Your task to perform on an android device: Is it going to rain tomorrow? Image 0: 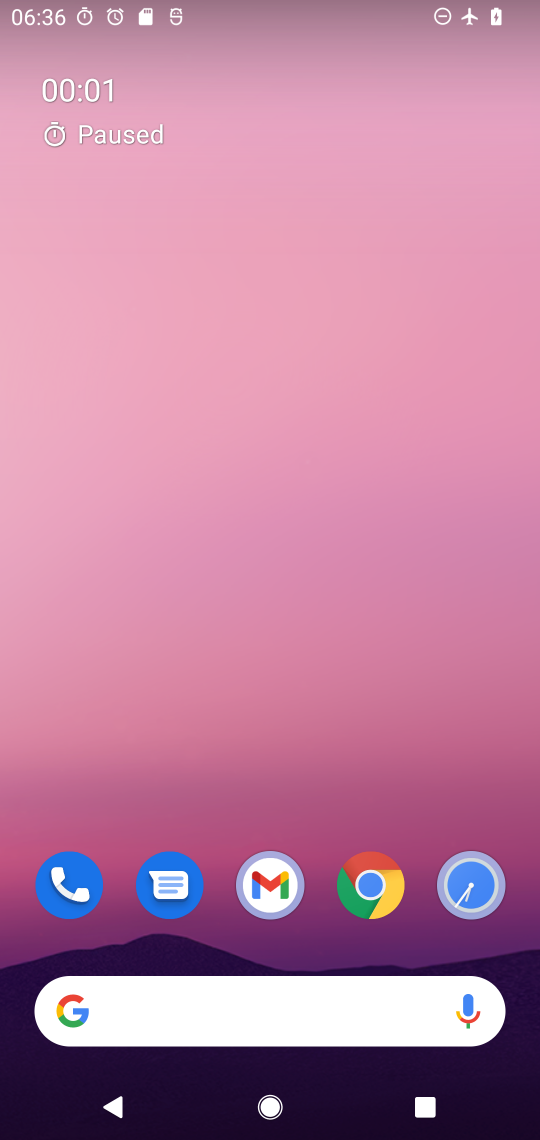
Step 0: drag from (286, 698) to (292, 95)
Your task to perform on an android device: Is it going to rain tomorrow? Image 1: 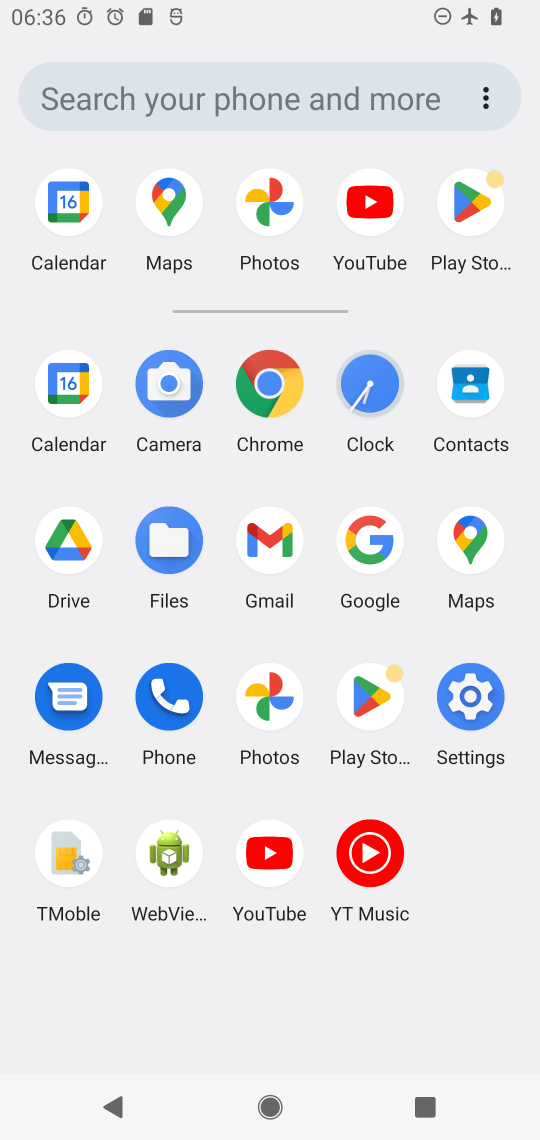
Step 1: click (265, 365)
Your task to perform on an android device: Is it going to rain tomorrow? Image 2: 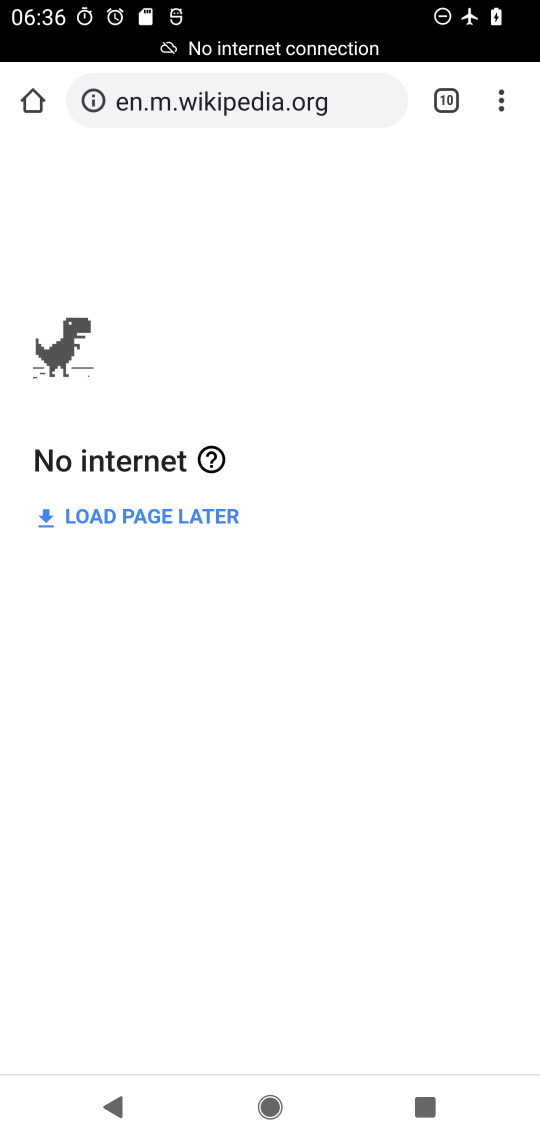
Step 2: click (498, 108)
Your task to perform on an android device: Is it going to rain tomorrow? Image 3: 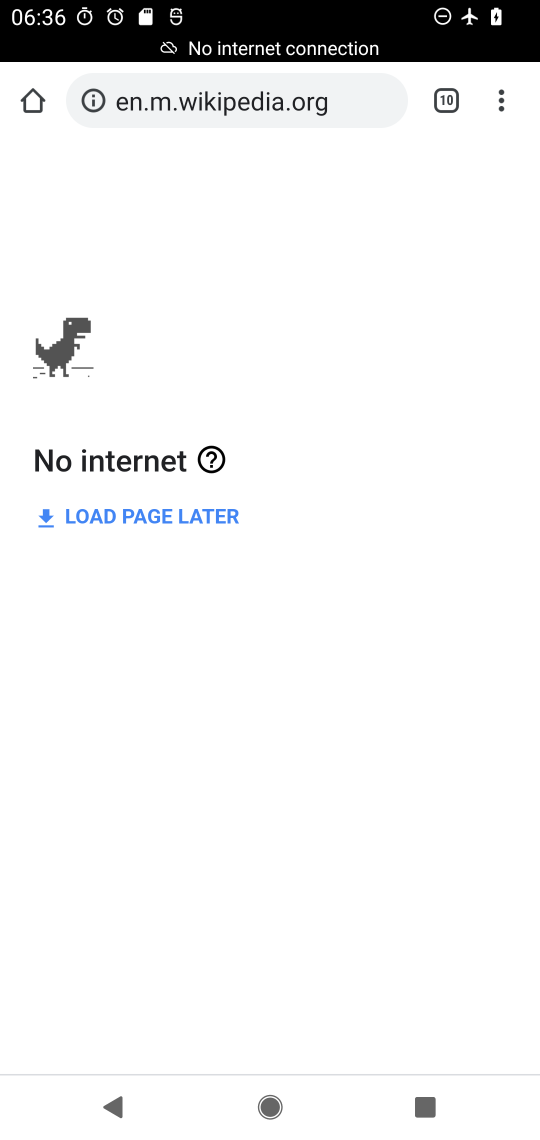
Step 3: click (501, 93)
Your task to perform on an android device: Is it going to rain tomorrow? Image 4: 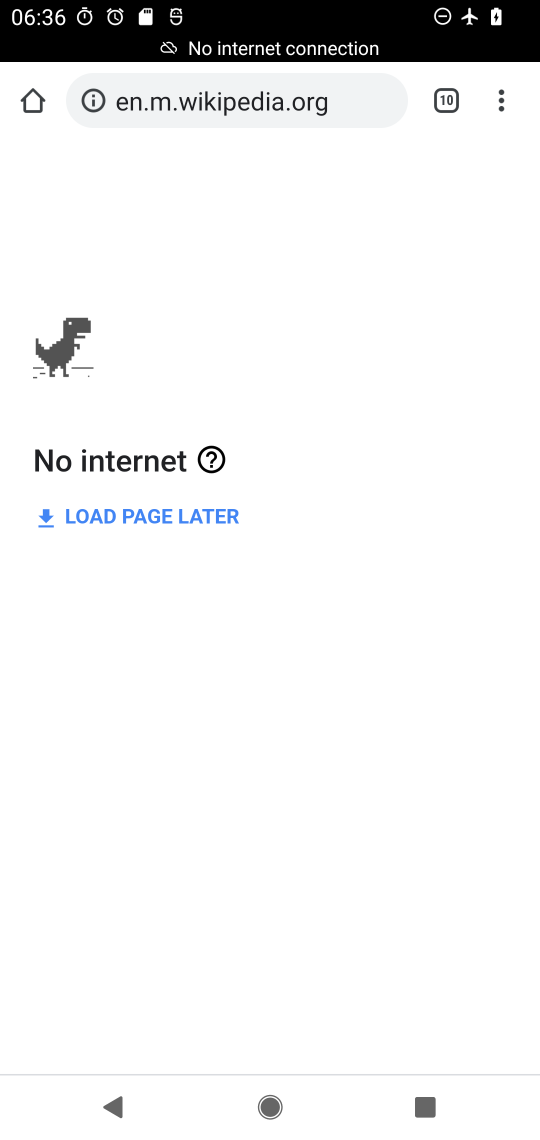
Step 4: click (489, 91)
Your task to perform on an android device: Is it going to rain tomorrow? Image 5: 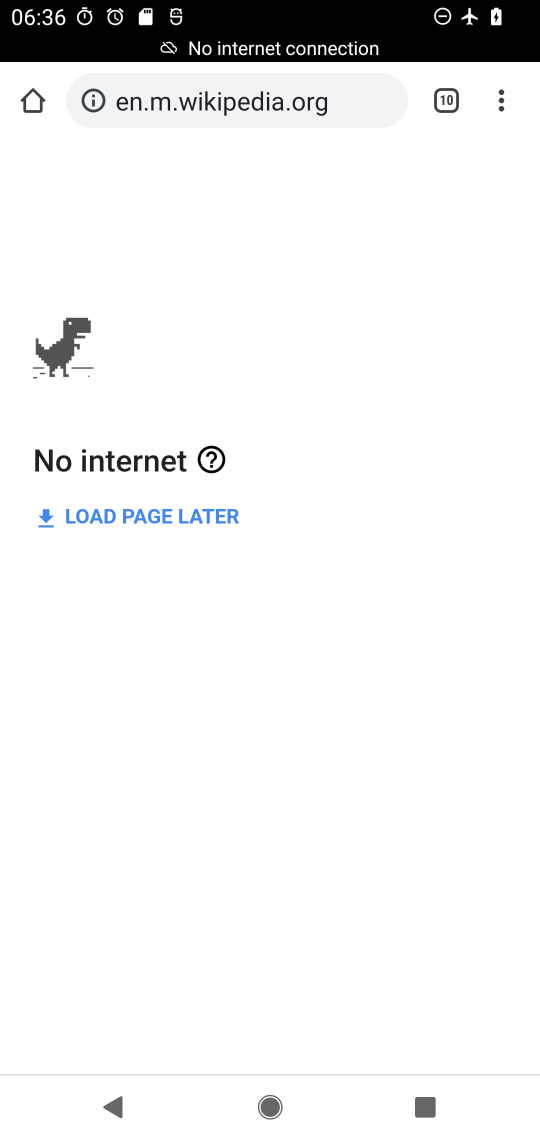
Step 5: click (489, 95)
Your task to perform on an android device: Is it going to rain tomorrow? Image 6: 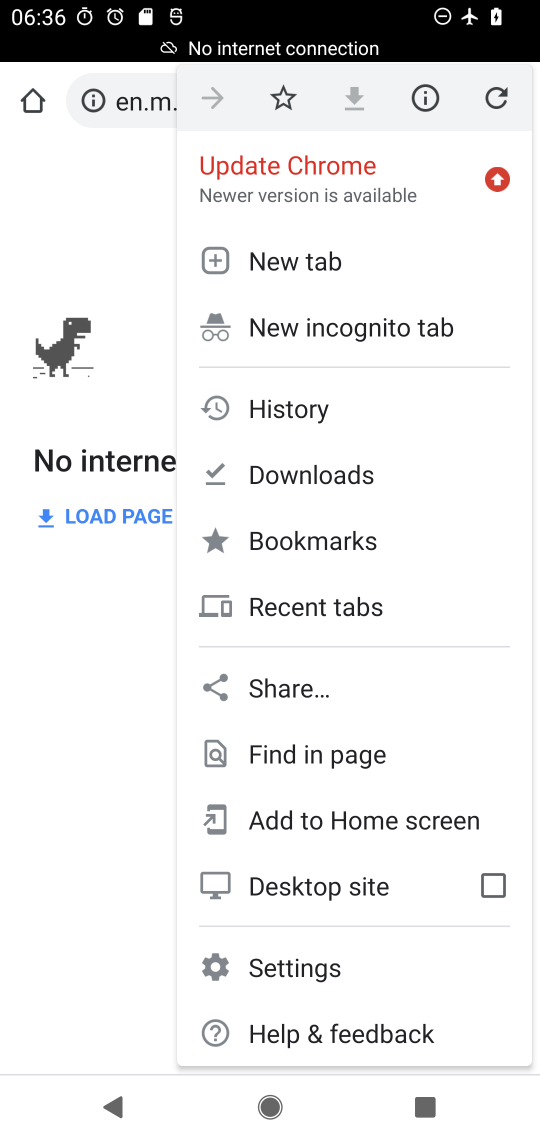
Step 6: click (324, 252)
Your task to perform on an android device: Is it going to rain tomorrow? Image 7: 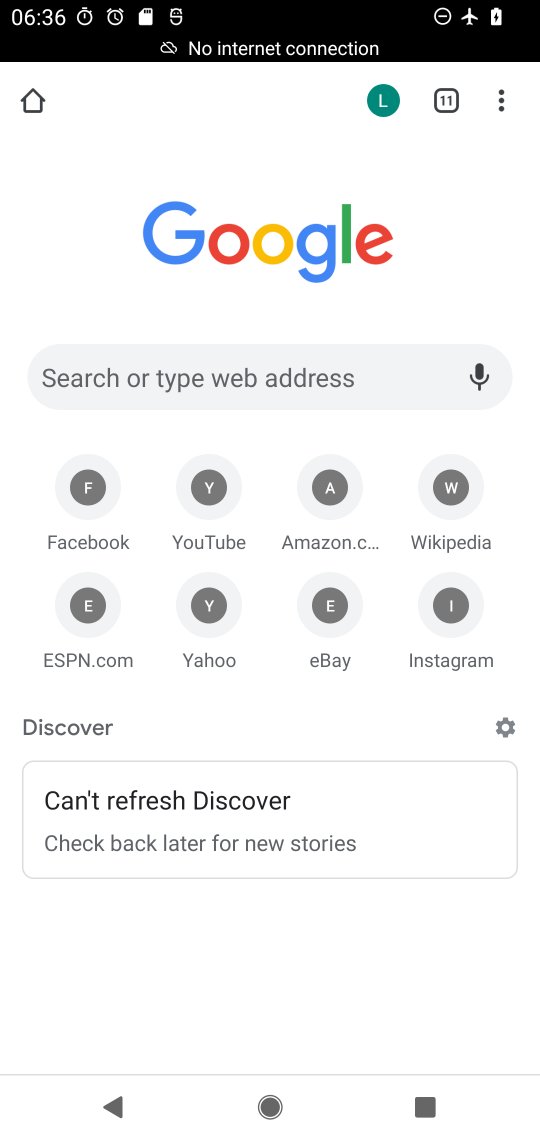
Step 7: click (289, 373)
Your task to perform on an android device: Is it going to rain tomorrow? Image 8: 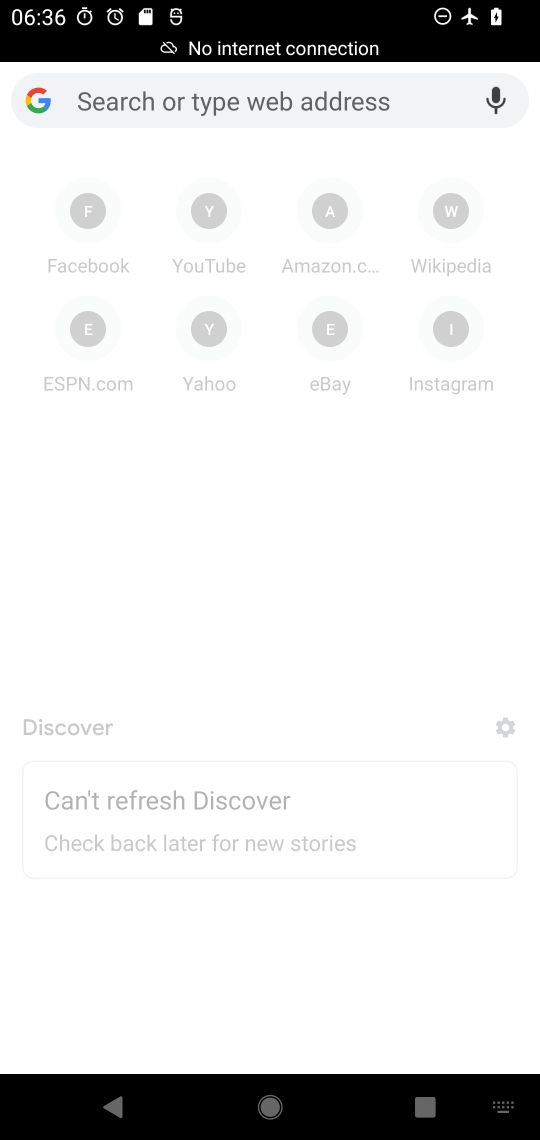
Step 8: type "Is it going to rain tomorrow? "
Your task to perform on an android device: Is it going to rain tomorrow? Image 9: 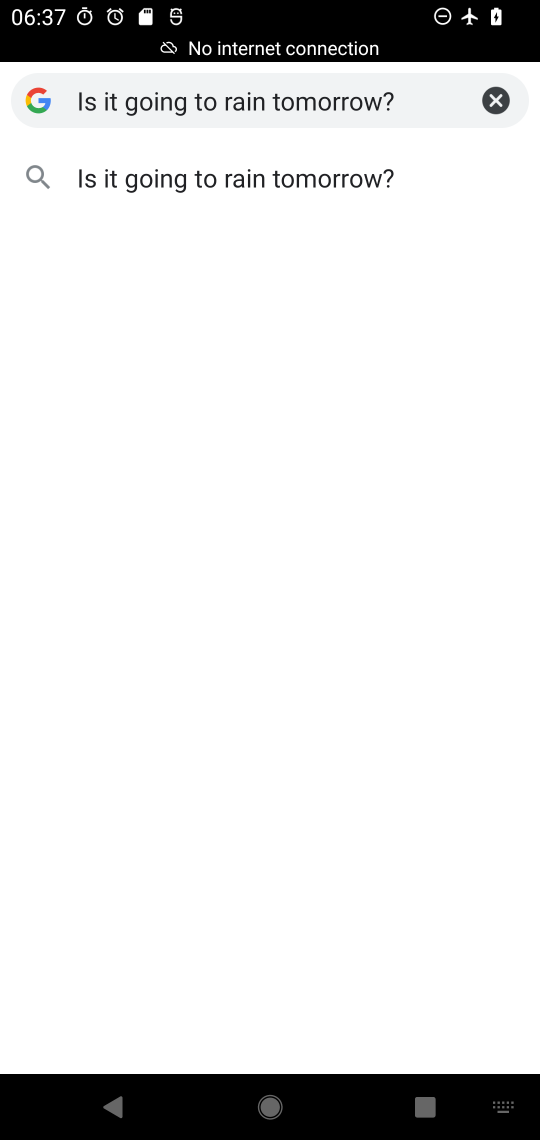
Step 9: click (124, 161)
Your task to perform on an android device: Is it going to rain tomorrow? Image 10: 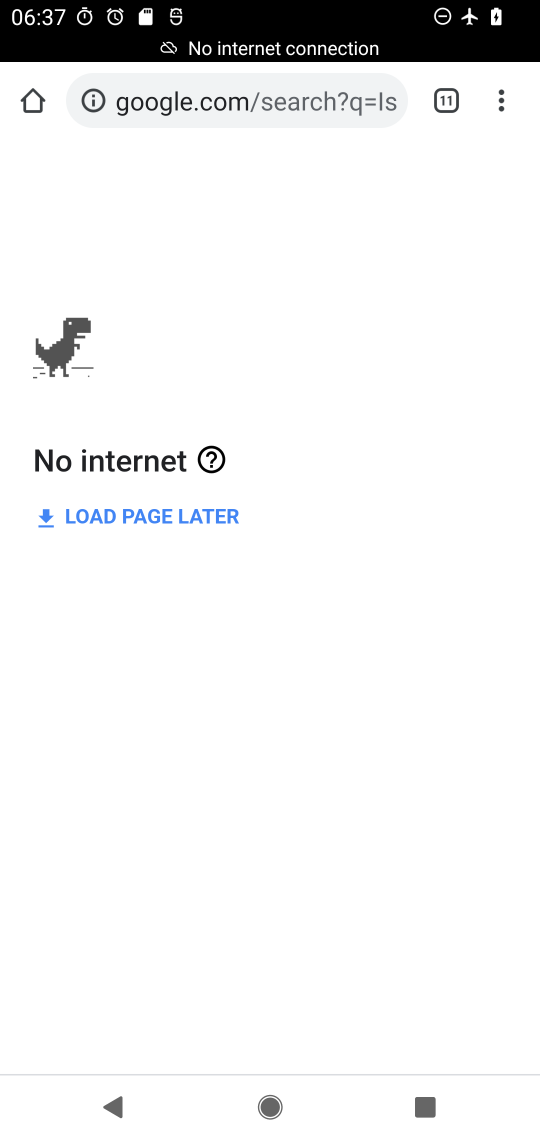
Step 10: task complete